Your task to perform on an android device: read, delete, or share a saved page in the chrome app Image 0: 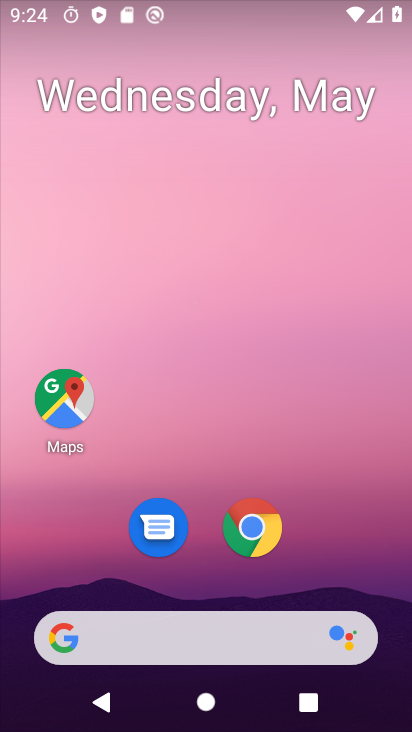
Step 0: click (248, 529)
Your task to perform on an android device: read, delete, or share a saved page in the chrome app Image 1: 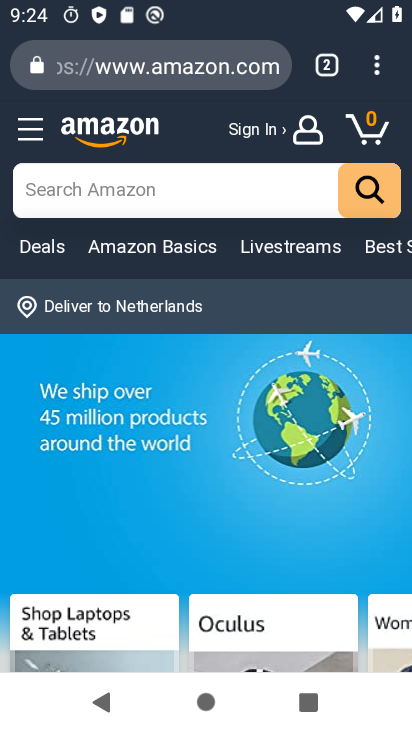
Step 1: drag from (182, 644) to (208, 198)
Your task to perform on an android device: read, delete, or share a saved page in the chrome app Image 2: 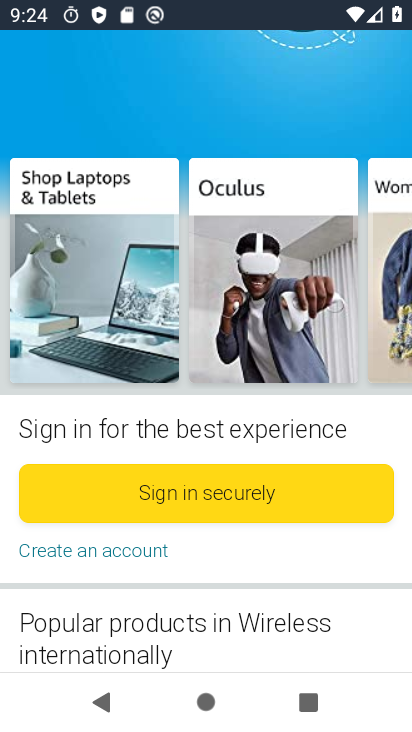
Step 2: drag from (288, 128) to (289, 702)
Your task to perform on an android device: read, delete, or share a saved page in the chrome app Image 3: 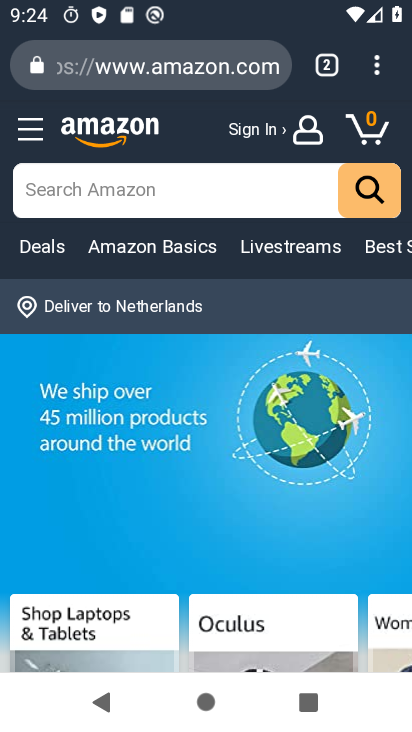
Step 3: drag from (374, 67) to (188, 61)
Your task to perform on an android device: read, delete, or share a saved page in the chrome app Image 4: 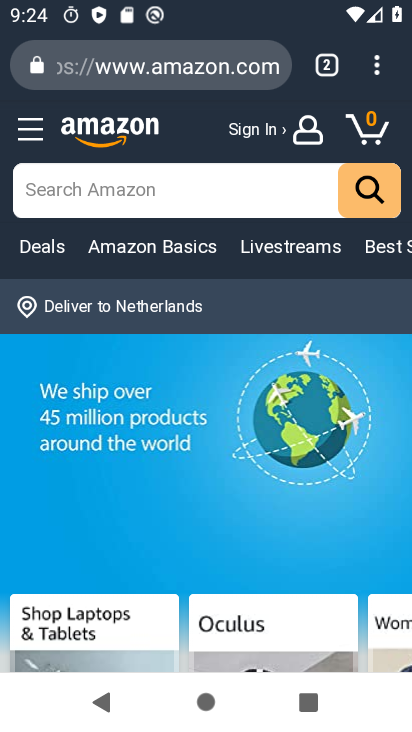
Step 4: drag from (370, 56) to (167, 64)
Your task to perform on an android device: read, delete, or share a saved page in the chrome app Image 5: 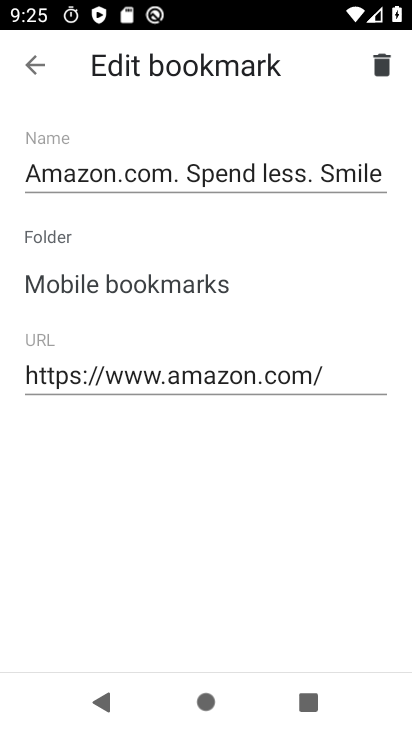
Step 5: click (377, 64)
Your task to perform on an android device: read, delete, or share a saved page in the chrome app Image 6: 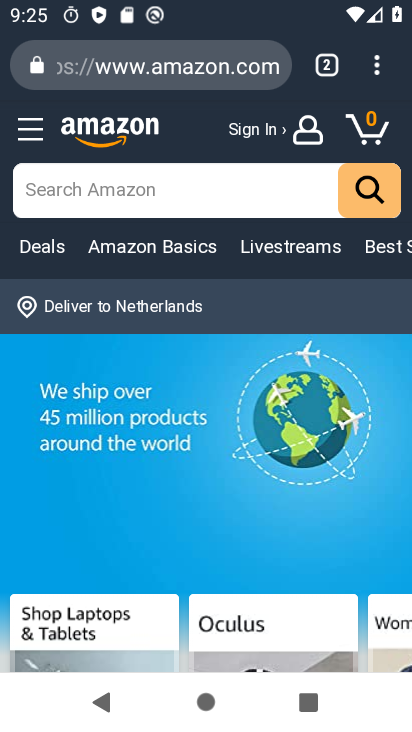
Step 6: task complete